Your task to perform on an android device: Go to sound settings Image 0: 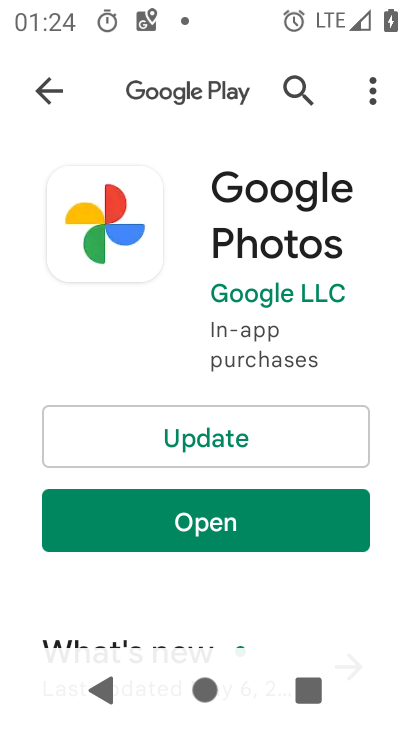
Step 0: press home button
Your task to perform on an android device: Go to sound settings Image 1: 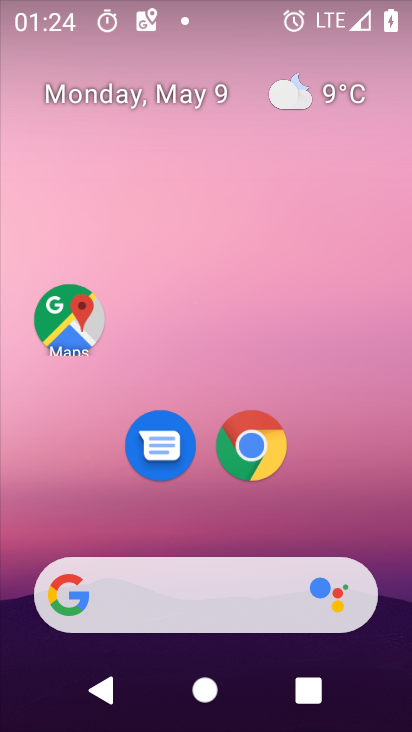
Step 1: drag from (354, 537) to (346, 9)
Your task to perform on an android device: Go to sound settings Image 2: 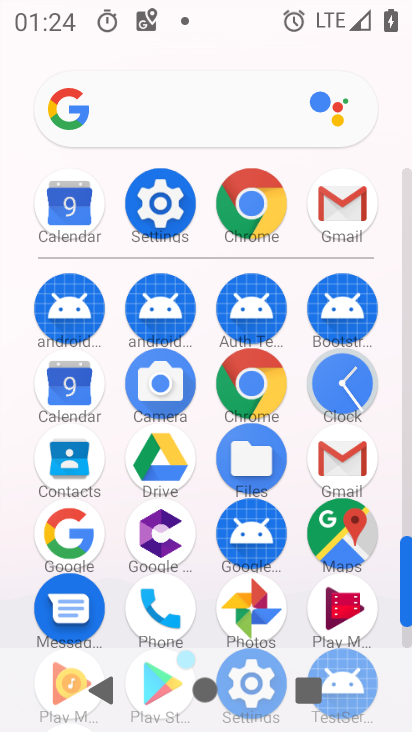
Step 2: click (158, 210)
Your task to perform on an android device: Go to sound settings Image 3: 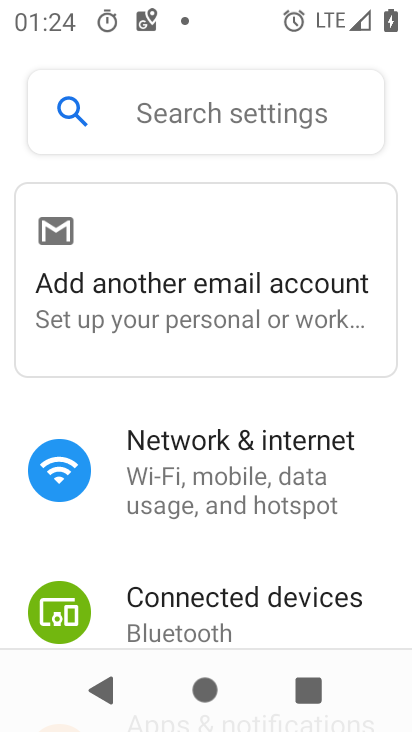
Step 3: drag from (271, 586) to (272, 205)
Your task to perform on an android device: Go to sound settings Image 4: 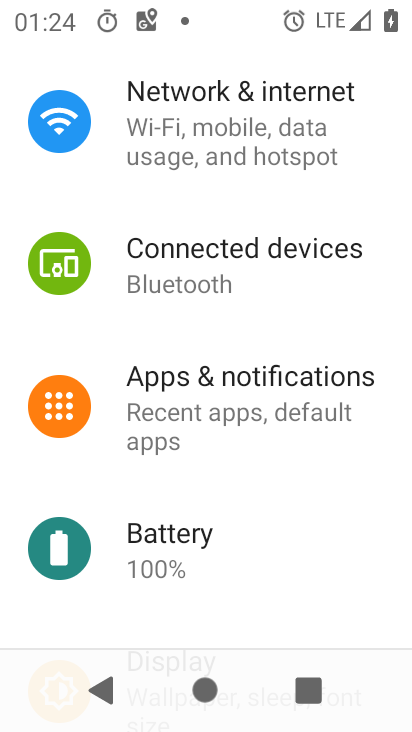
Step 4: drag from (225, 522) to (261, 164)
Your task to perform on an android device: Go to sound settings Image 5: 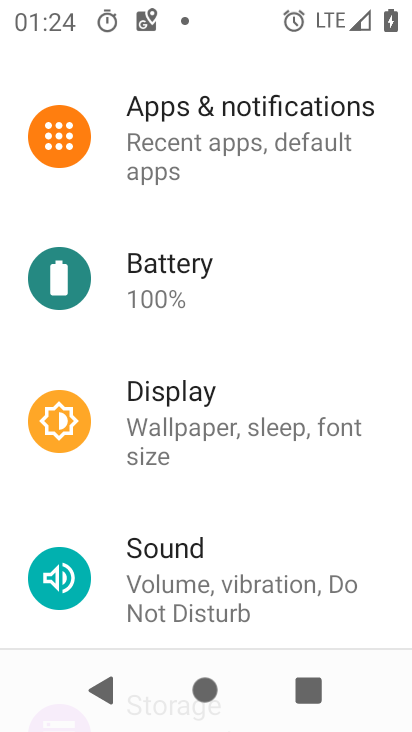
Step 5: click (169, 568)
Your task to perform on an android device: Go to sound settings Image 6: 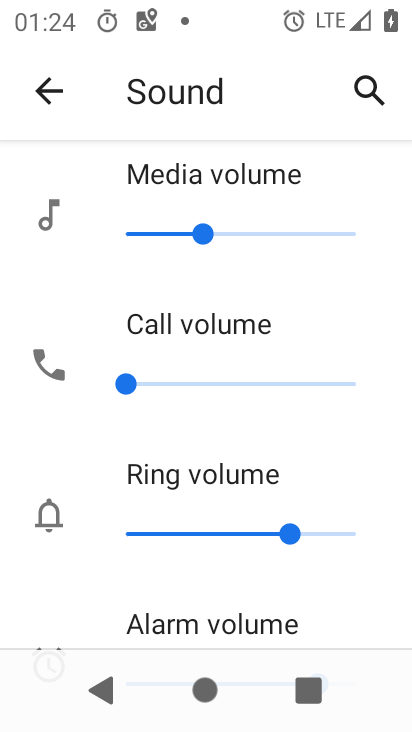
Step 6: task complete